Your task to perform on an android device: Search for pizza restaurants on Maps Image 0: 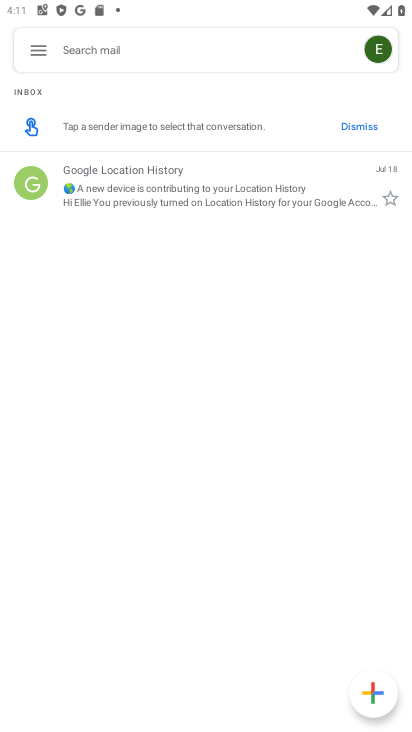
Step 0: press home button
Your task to perform on an android device: Search for pizza restaurants on Maps Image 1: 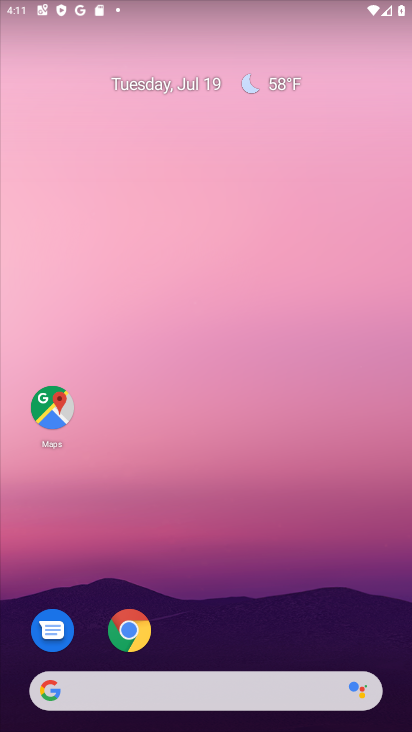
Step 1: click (58, 400)
Your task to perform on an android device: Search for pizza restaurants on Maps Image 2: 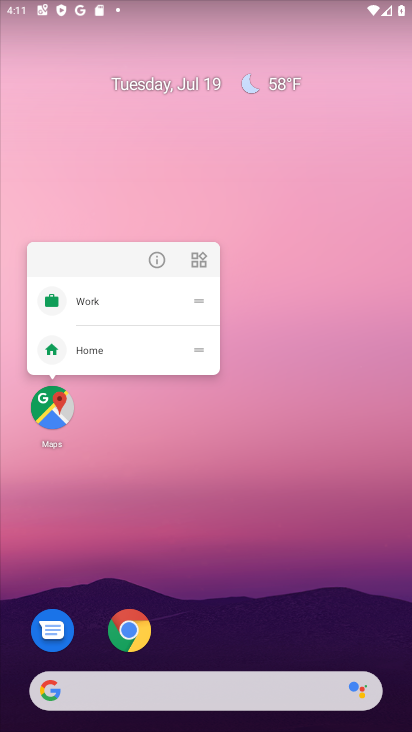
Step 2: click (55, 399)
Your task to perform on an android device: Search for pizza restaurants on Maps Image 3: 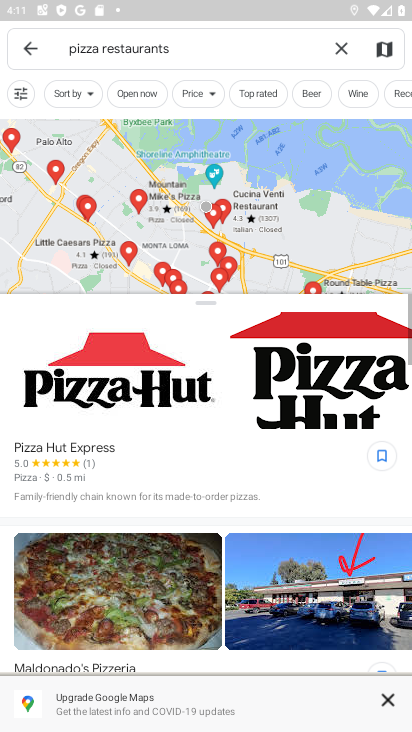
Step 3: click (29, 49)
Your task to perform on an android device: Search for pizza restaurants on Maps Image 4: 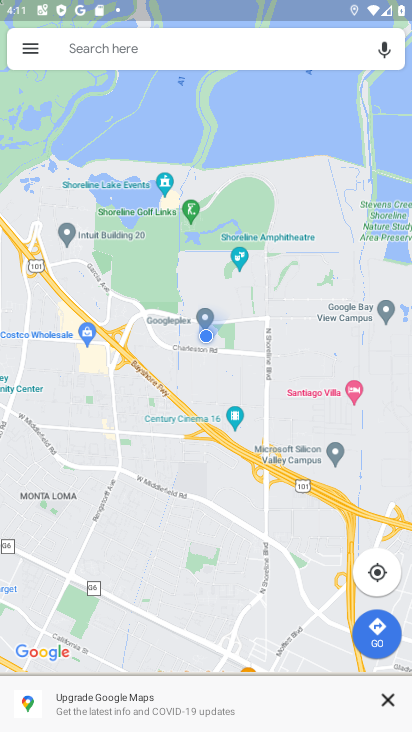
Step 4: type " pizza restaurants"
Your task to perform on an android device: Search for pizza restaurants on Maps Image 5: 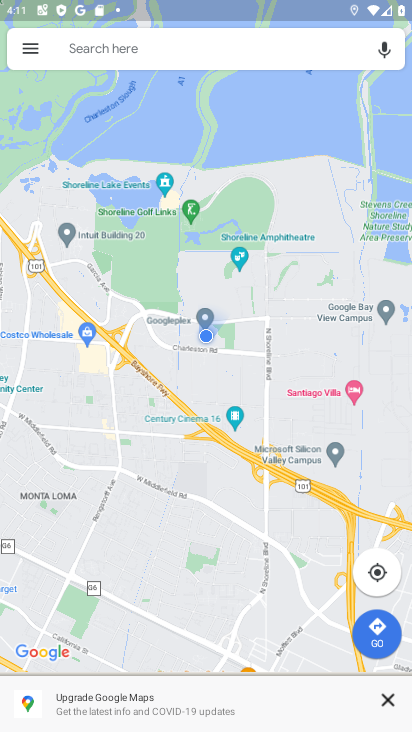
Step 5: click (99, 44)
Your task to perform on an android device: Search for pizza restaurants on Maps Image 6: 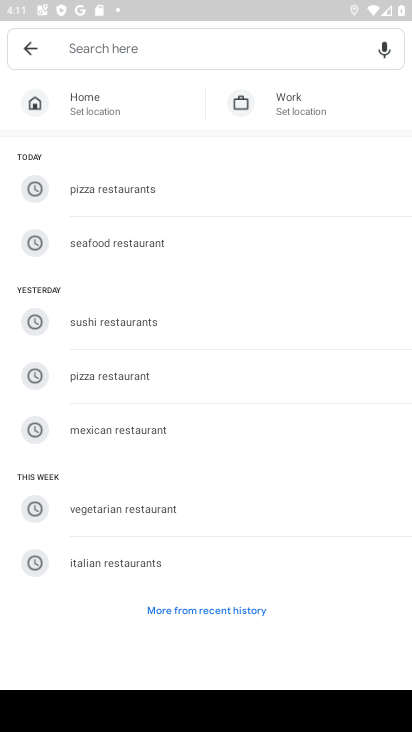
Step 6: click (100, 190)
Your task to perform on an android device: Search for pizza restaurants on Maps Image 7: 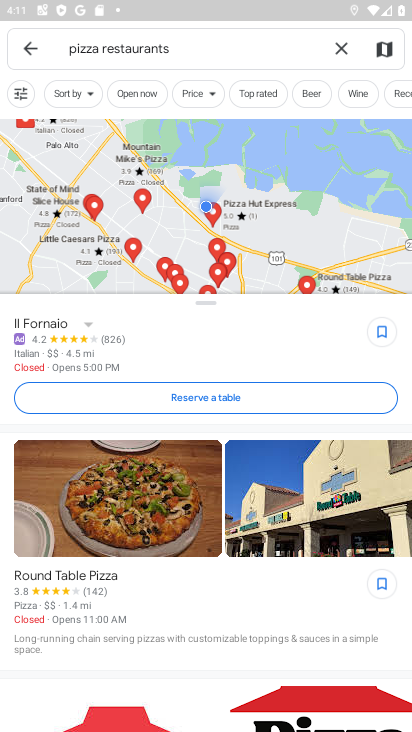
Step 7: task complete